Your task to perform on an android device: Open location settings Image 0: 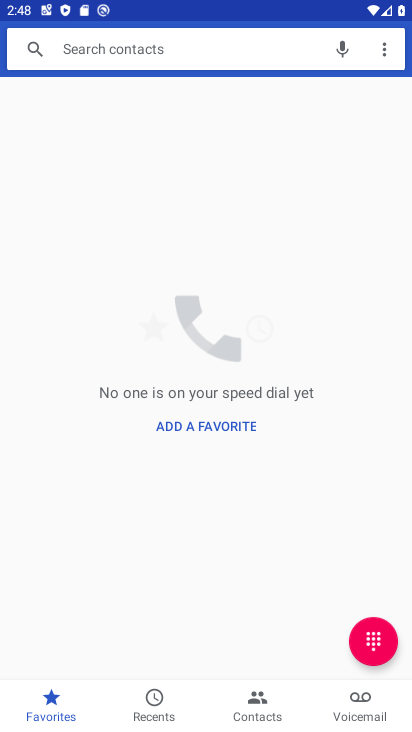
Step 0: press home button
Your task to perform on an android device: Open location settings Image 1: 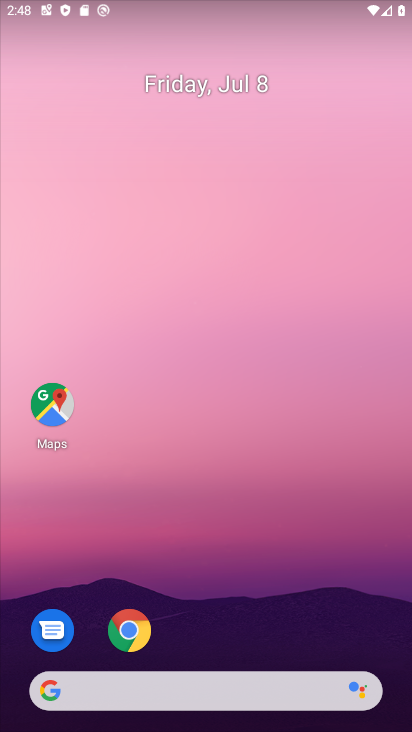
Step 1: drag from (218, 649) to (212, 33)
Your task to perform on an android device: Open location settings Image 2: 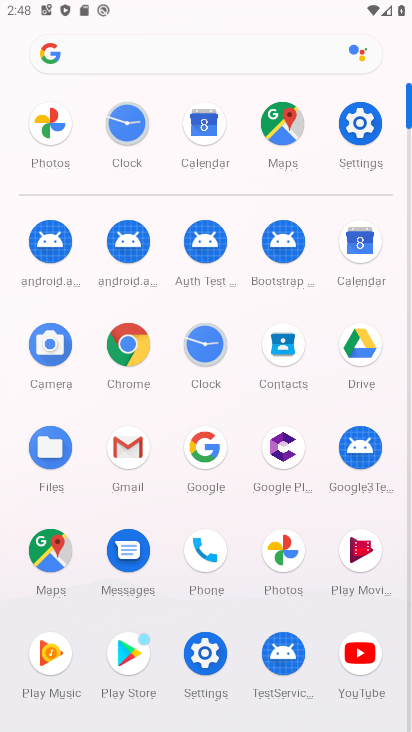
Step 2: click (346, 117)
Your task to perform on an android device: Open location settings Image 3: 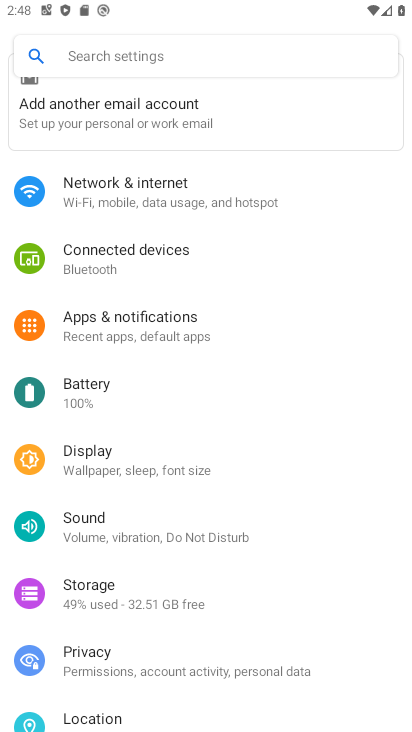
Step 3: click (193, 694)
Your task to perform on an android device: Open location settings Image 4: 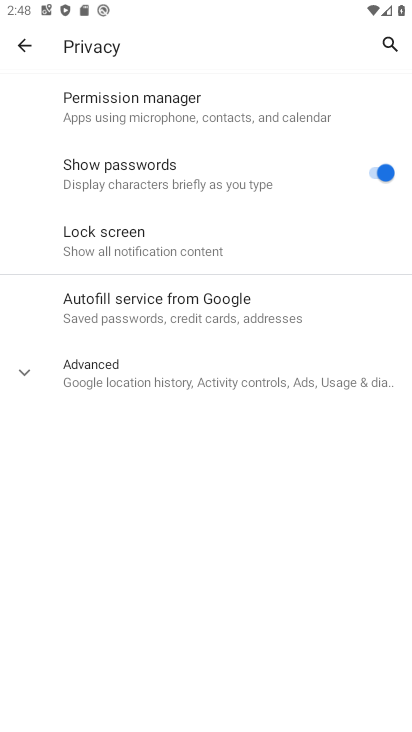
Step 4: click (27, 34)
Your task to perform on an android device: Open location settings Image 5: 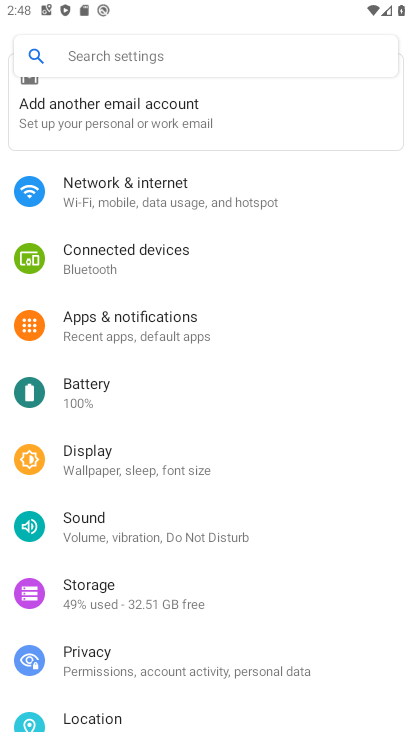
Step 5: click (207, 724)
Your task to perform on an android device: Open location settings Image 6: 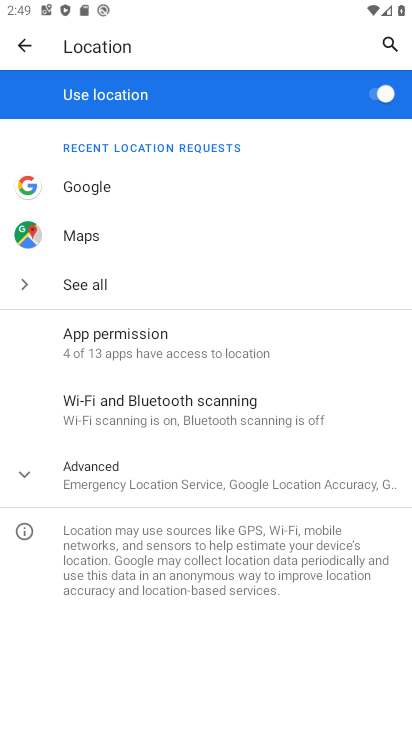
Step 6: task complete